Your task to perform on an android device: turn on airplane mode Image 0: 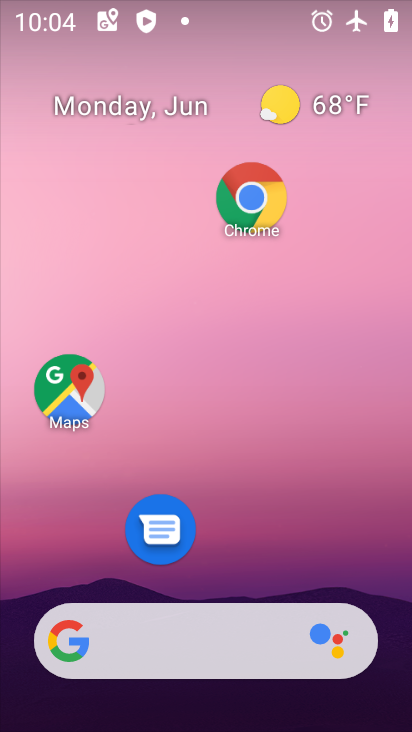
Step 0: drag from (214, 571) to (244, 207)
Your task to perform on an android device: turn on airplane mode Image 1: 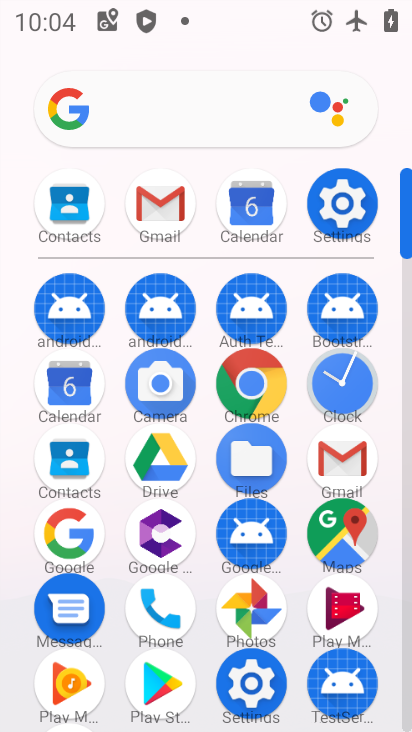
Step 1: click (334, 200)
Your task to perform on an android device: turn on airplane mode Image 2: 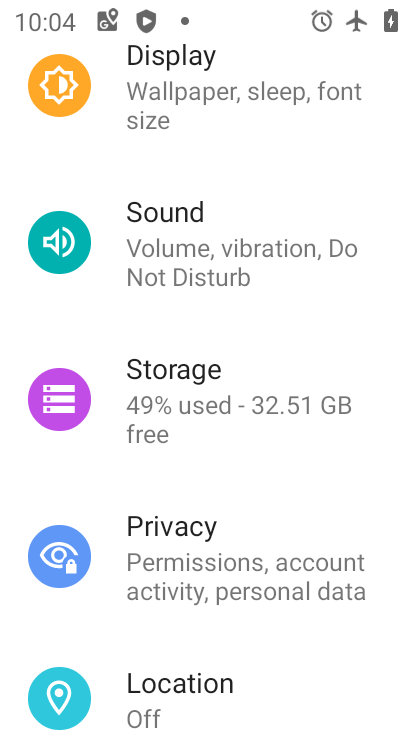
Step 2: drag from (243, 221) to (240, 610)
Your task to perform on an android device: turn on airplane mode Image 3: 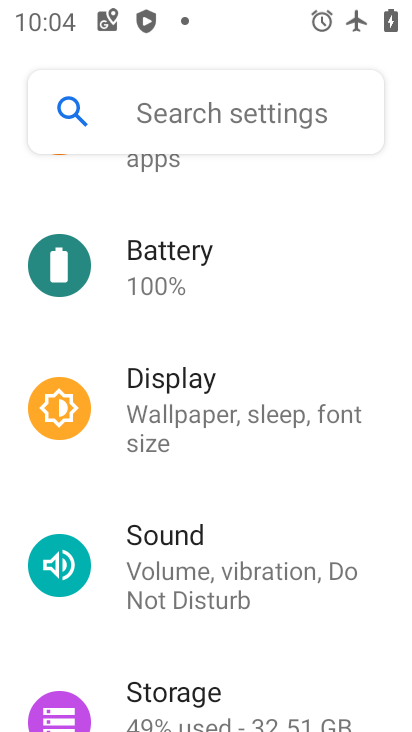
Step 3: drag from (250, 223) to (250, 643)
Your task to perform on an android device: turn on airplane mode Image 4: 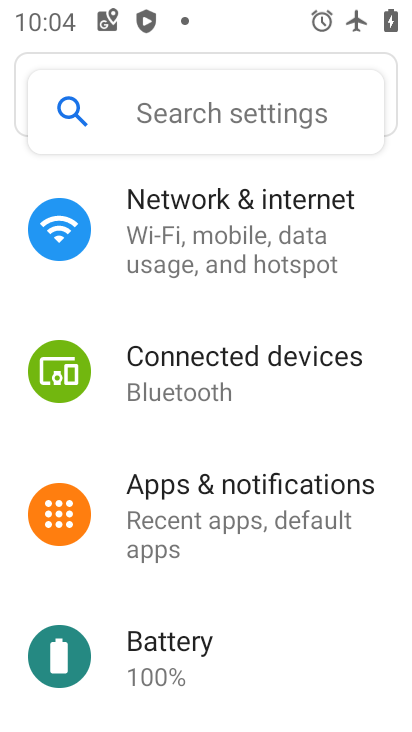
Step 4: click (209, 264)
Your task to perform on an android device: turn on airplane mode Image 5: 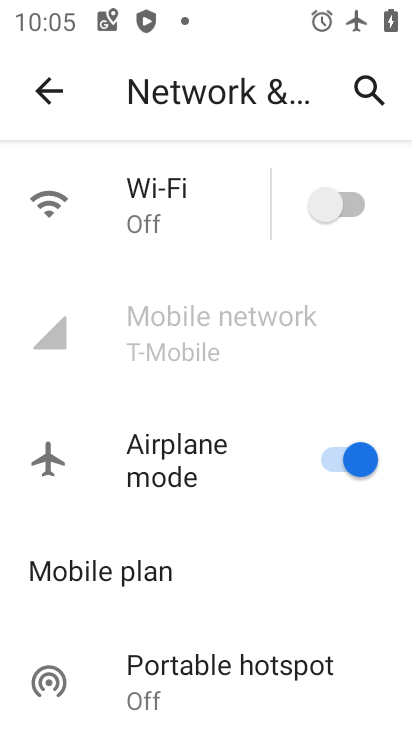
Step 5: task complete